Your task to perform on an android device: turn on improve location accuracy Image 0: 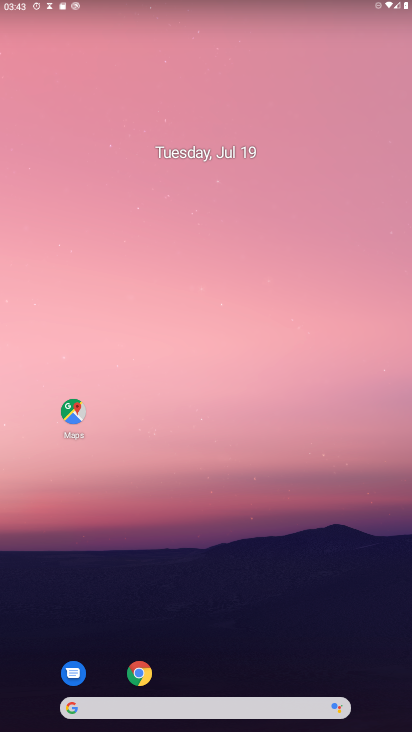
Step 0: drag from (220, 672) to (386, 400)
Your task to perform on an android device: turn on improve location accuracy Image 1: 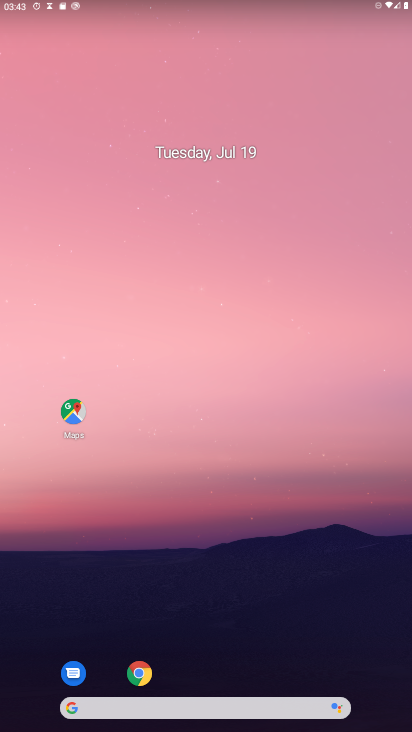
Step 1: drag from (209, 647) to (212, 3)
Your task to perform on an android device: turn on improve location accuracy Image 2: 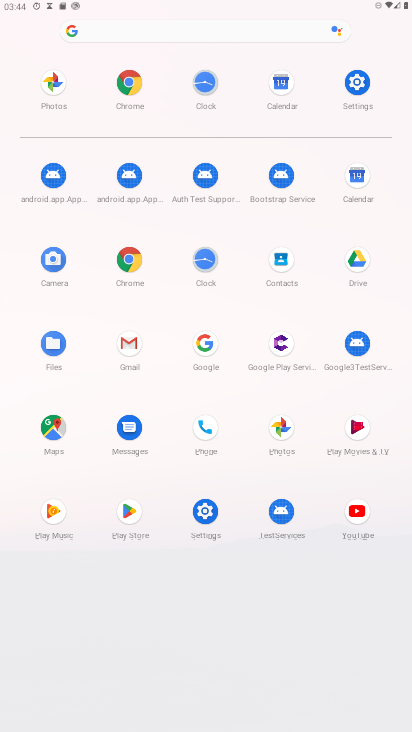
Step 2: click (198, 527)
Your task to perform on an android device: turn on improve location accuracy Image 3: 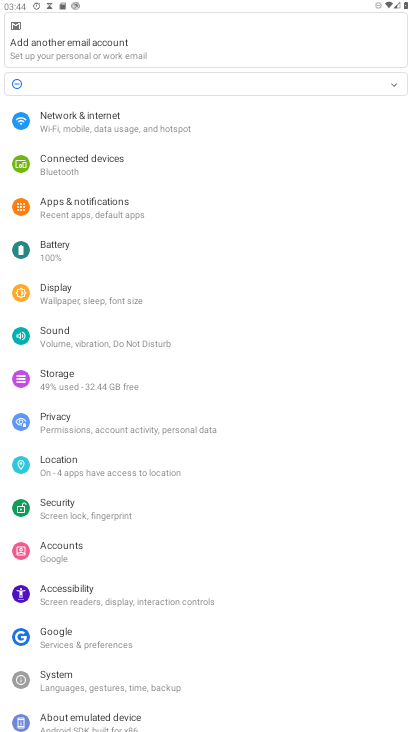
Step 3: click (104, 462)
Your task to perform on an android device: turn on improve location accuracy Image 4: 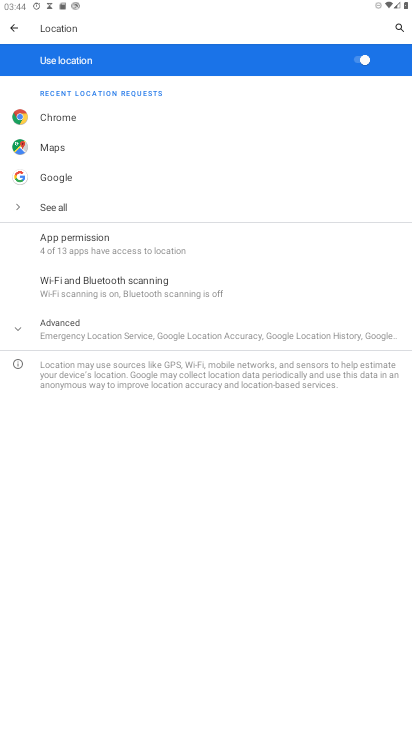
Step 4: click (79, 338)
Your task to perform on an android device: turn on improve location accuracy Image 5: 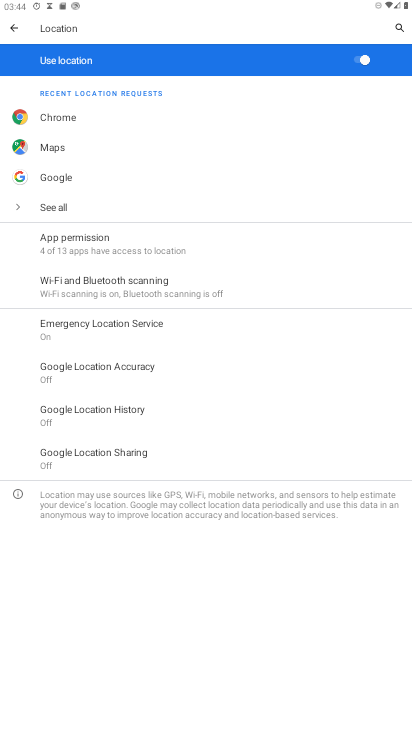
Step 5: click (110, 368)
Your task to perform on an android device: turn on improve location accuracy Image 6: 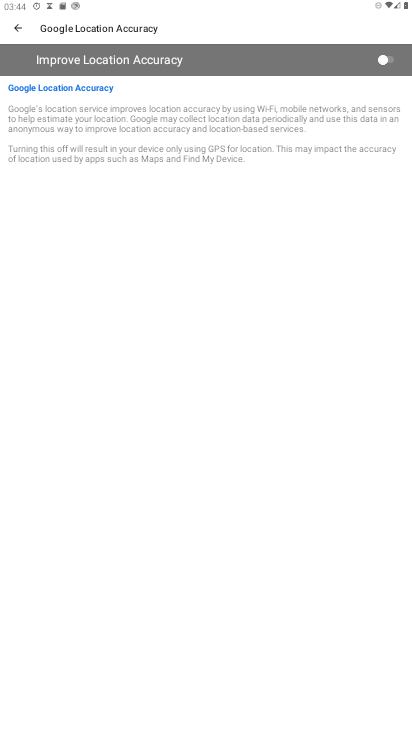
Step 6: click (381, 58)
Your task to perform on an android device: turn on improve location accuracy Image 7: 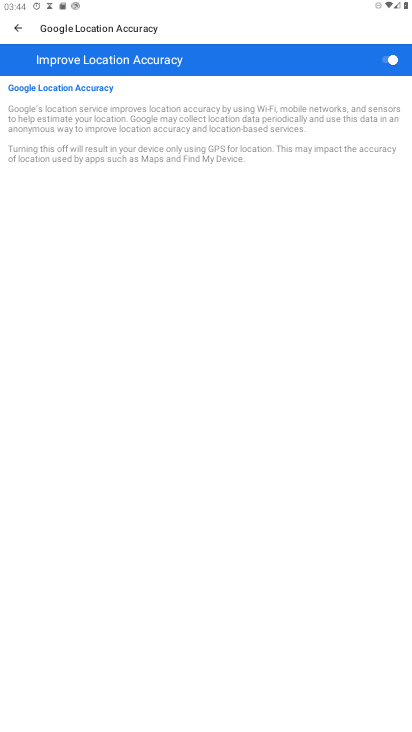
Step 7: task complete